Your task to perform on an android device: Go to Yahoo.com Image 0: 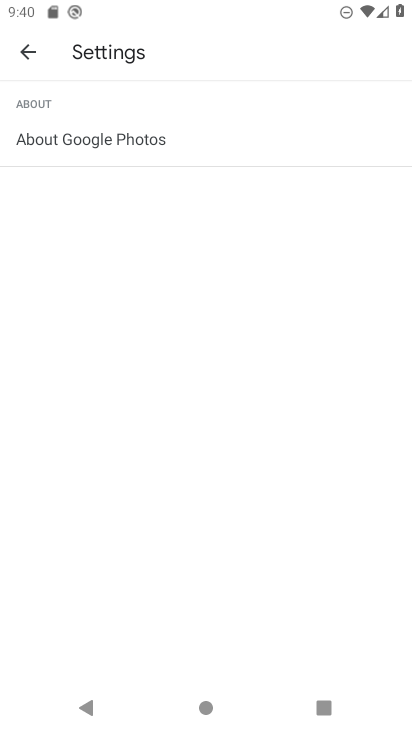
Step 0: press home button
Your task to perform on an android device: Go to Yahoo.com Image 1: 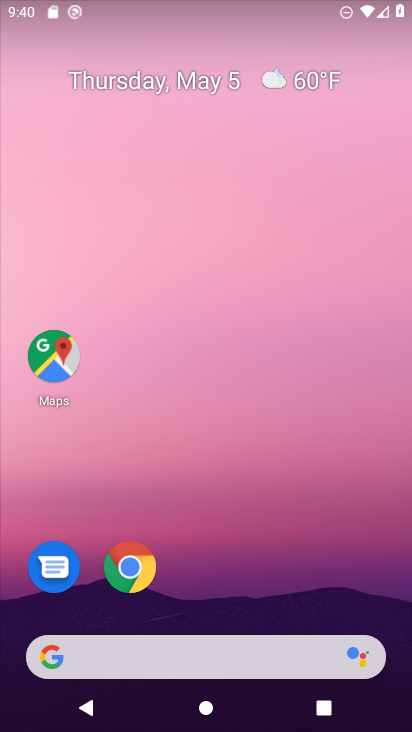
Step 1: click (128, 565)
Your task to perform on an android device: Go to Yahoo.com Image 2: 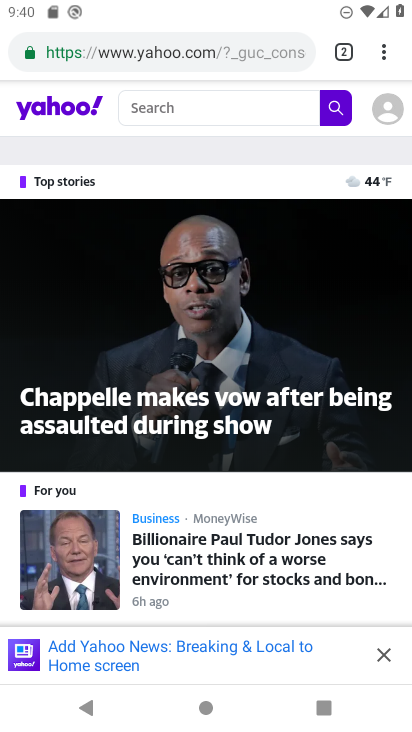
Step 2: task complete